Your task to perform on an android device: remove spam from my inbox in the gmail app Image 0: 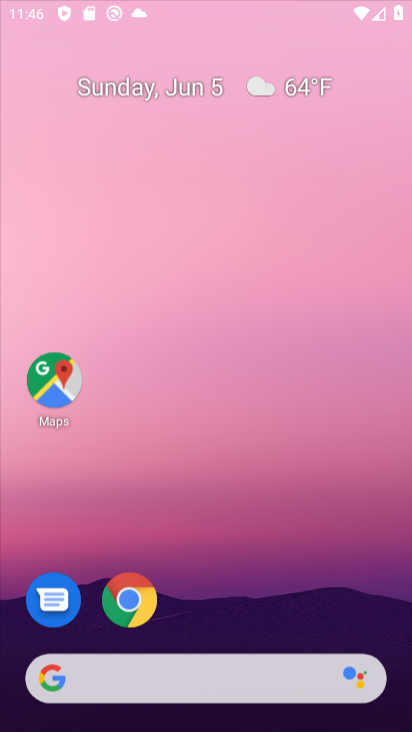
Step 0: click (201, 101)
Your task to perform on an android device: remove spam from my inbox in the gmail app Image 1: 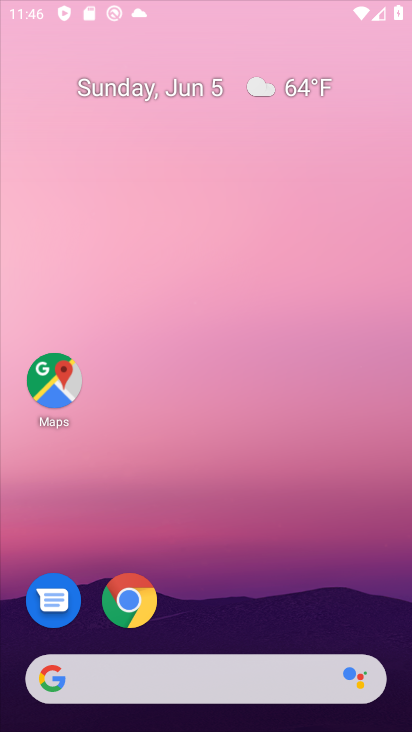
Step 1: press back button
Your task to perform on an android device: remove spam from my inbox in the gmail app Image 2: 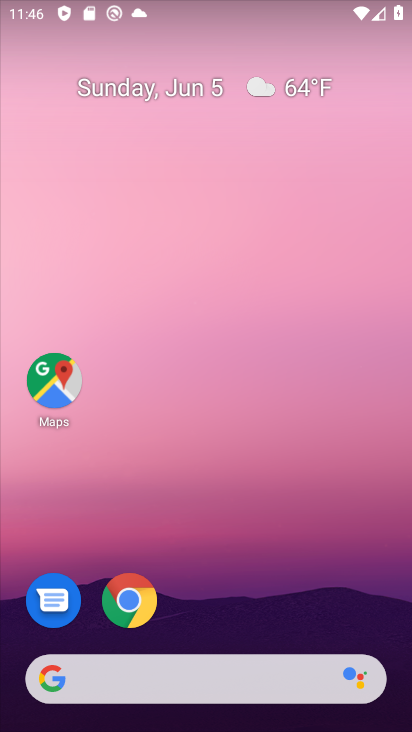
Step 2: drag from (181, 338) to (141, 60)
Your task to perform on an android device: remove spam from my inbox in the gmail app Image 3: 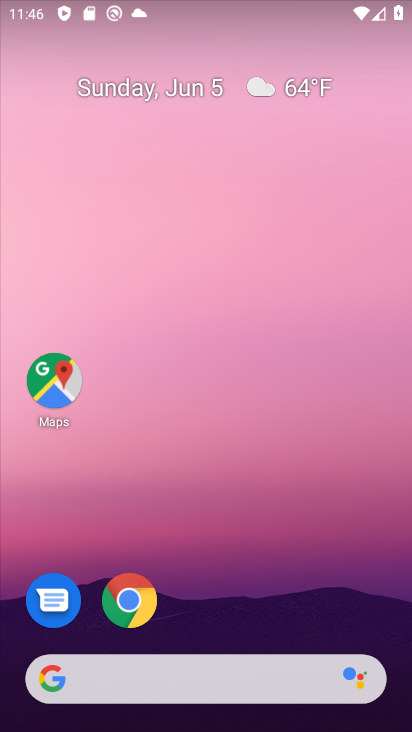
Step 3: drag from (263, 593) to (263, 74)
Your task to perform on an android device: remove spam from my inbox in the gmail app Image 4: 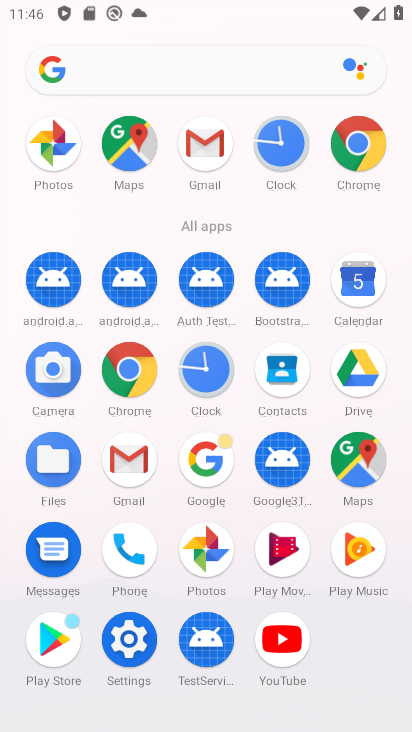
Step 4: click (119, 461)
Your task to perform on an android device: remove spam from my inbox in the gmail app Image 5: 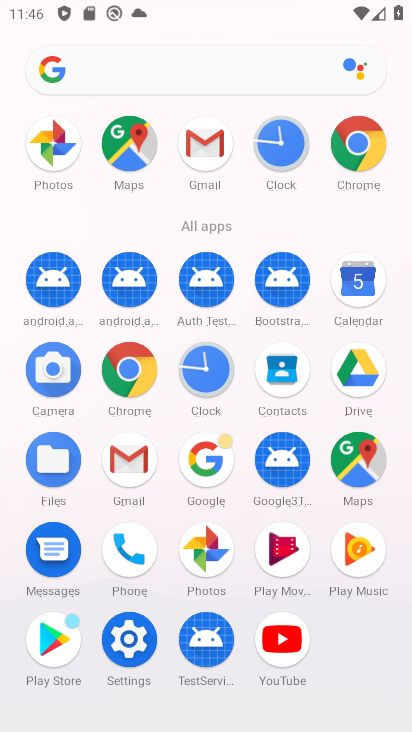
Step 5: click (119, 461)
Your task to perform on an android device: remove spam from my inbox in the gmail app Image 6: 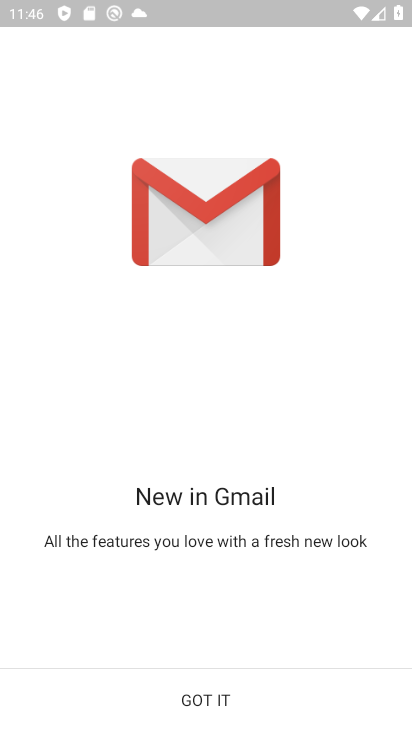
Step 6: click (219, 707)
Your task to perform on an android device: remove spam from my inbox in the gmail app Image 7: 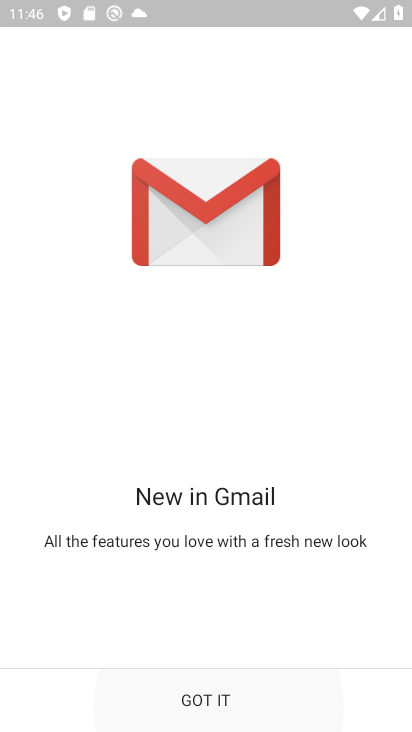
Step 7: click (219, 707)
Your task to perform on an android device: remove spam from my inbox in the gmail app Image 8: 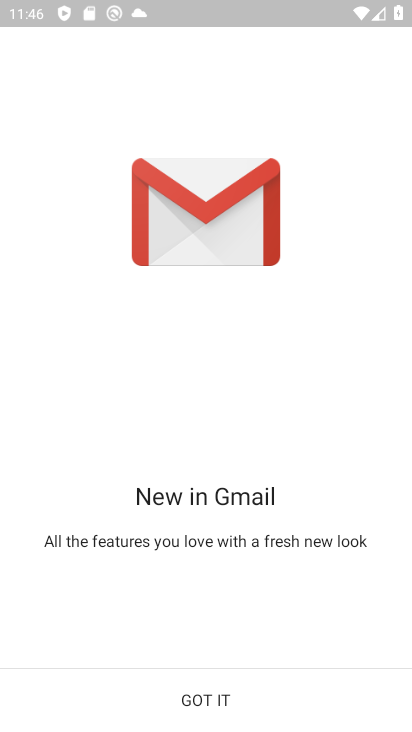
Step 8: click (219, 707)
Your task to perform on an android device: remove spam from my inbox in the gmail app Image 9: 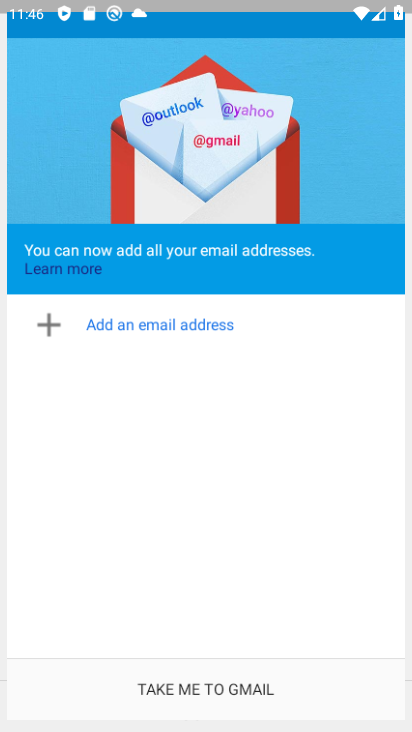
Step 9: click (219, 707)
Your task to perform on an android device: remove spam from my inbox in the gmail app Image 10: 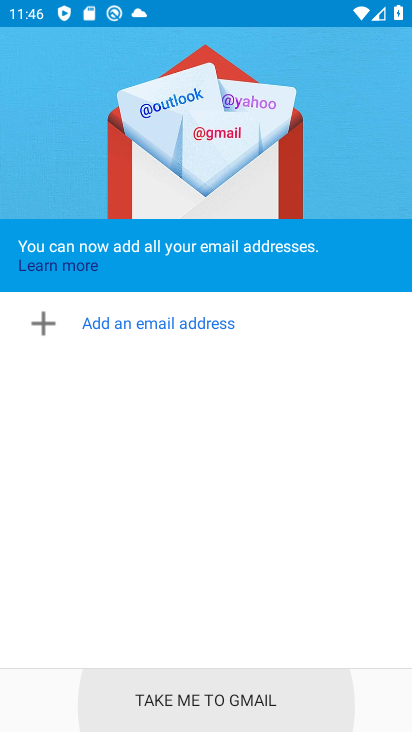
Step 10: click (218, 710)
Your task to perform on an android device: remove spam from my inbox in the gmail app Image 11: 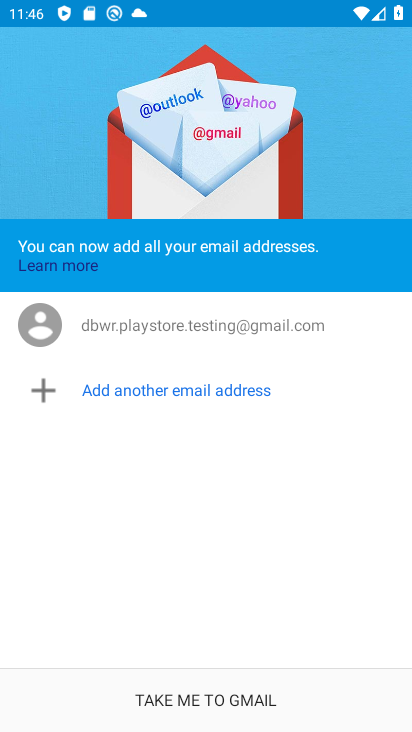
Step 11: click (215, 693)
Your task to perform on an android device: remove spam from my inbox in the gmail app Image 12: 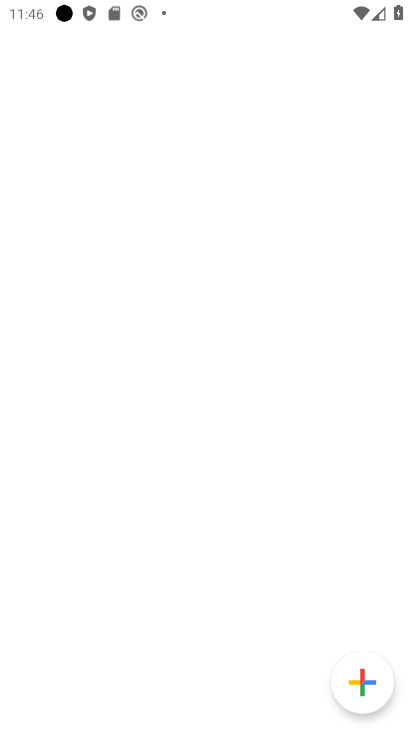
Step 12: click (208, 701)
Your task to perform on an android device: remove spam from my inbox in the gmail app Image 13: 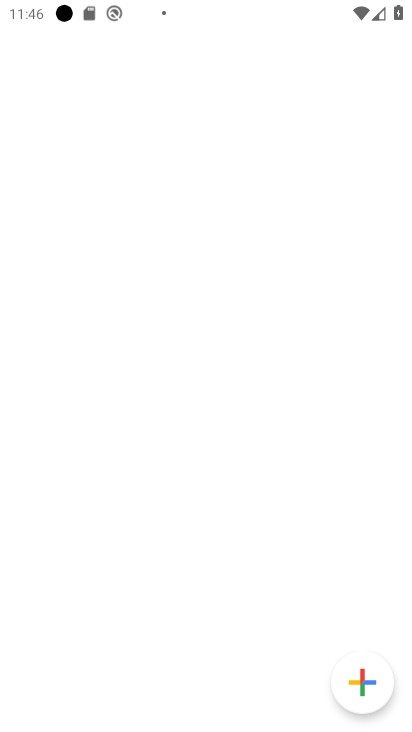
Step 13: click (208, 701)
Your task to perform on an android device: remove spam from my inbox in the gmail app Image 14: 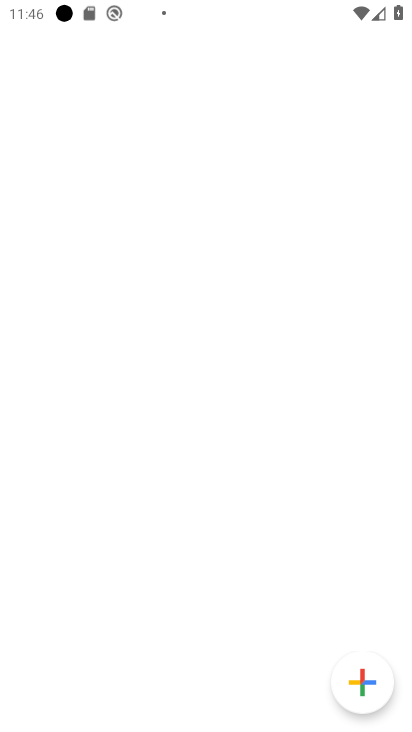
Step 14: click (208, 701)
Your task to perform on an android device: remove spam from my inbox in the gmail app Image 15: 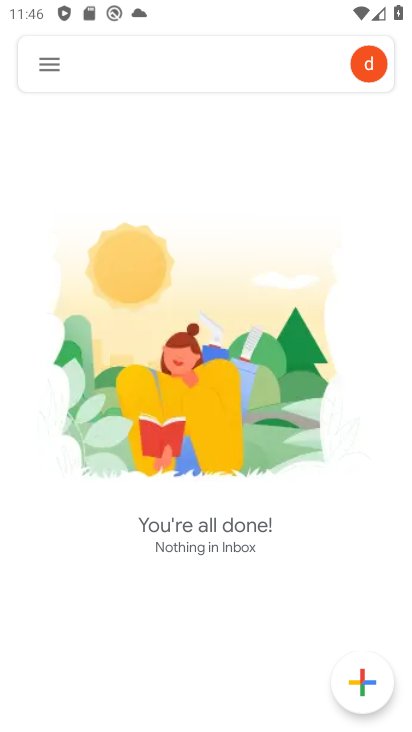
Step 15: click (46, 73)
Your task to perform on an android device: remove spam from my inbox in the gmail app Image 16: 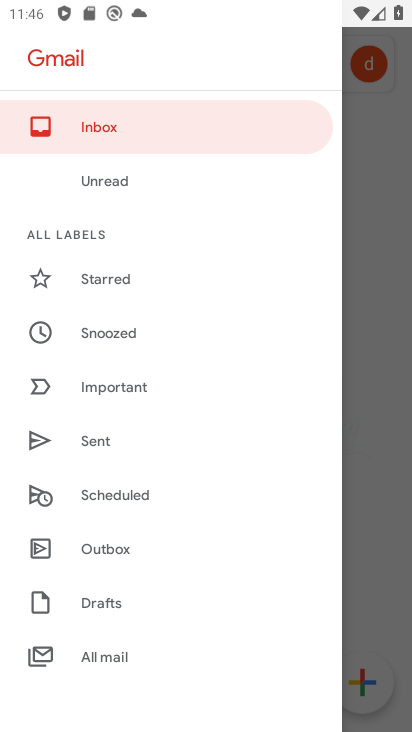
Step 16: drag from (90, 495) to (90, 124)
Your task to perform on an android device: remove spam from my inbox in the gmail app Image 17: 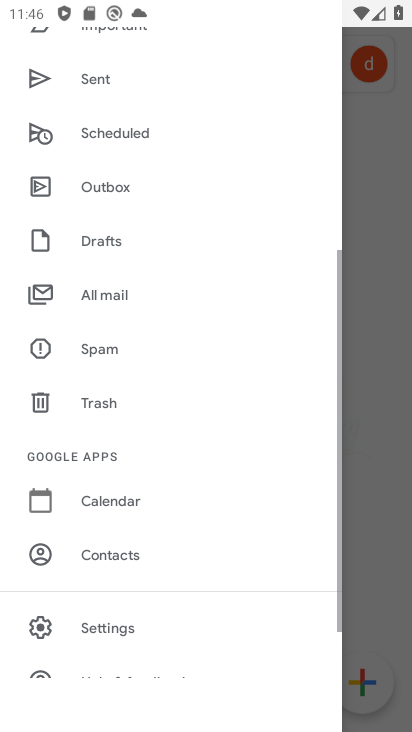
Step 17: drag from (116, 428) to (116, 210)
Your task to perform on an android device: remove spam from my inbox in the gmail app Image 18: 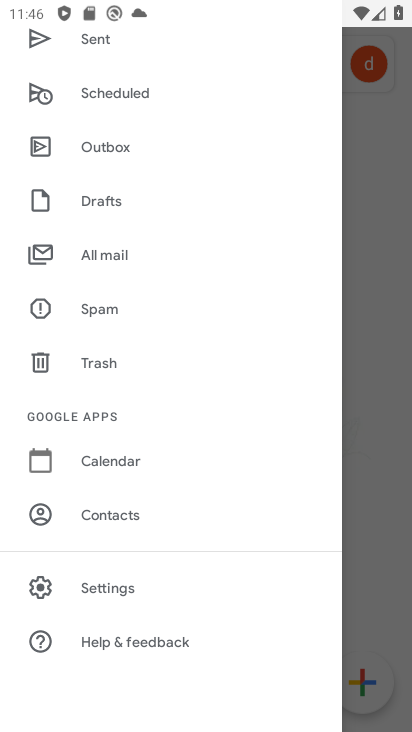
Step 18: click (97, 306)
Your task to perform on an android device: remove spam from my inbox in the gmail app Image 19: 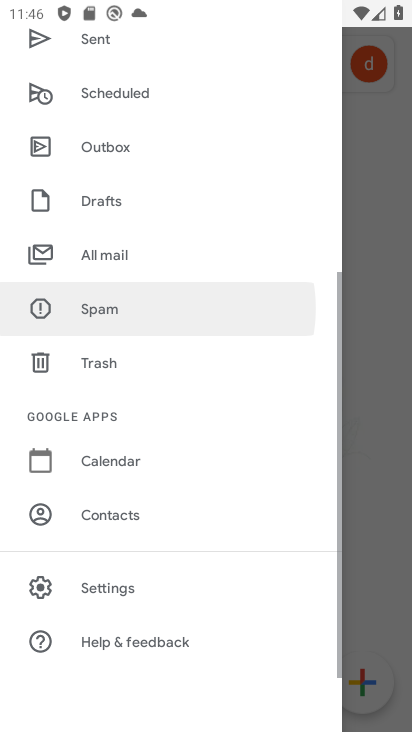
Step 19: click (97, 306)
Your task to perform on an android device: remove spam from my inbox in the gmail app Image 20: 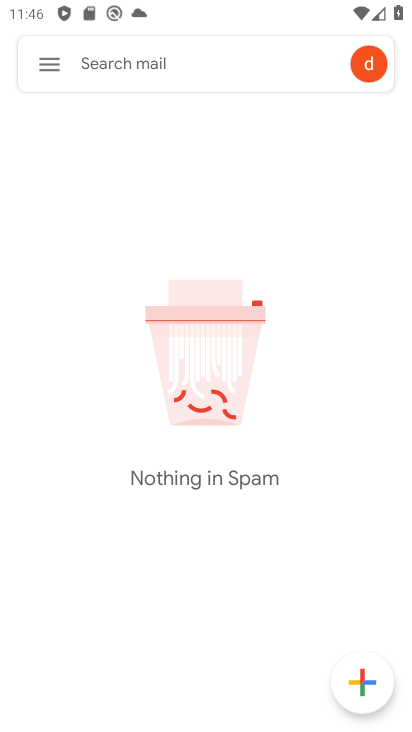
Step 20: task complete